Your task to perform on an android device: What's on my calendar today? Image 0: 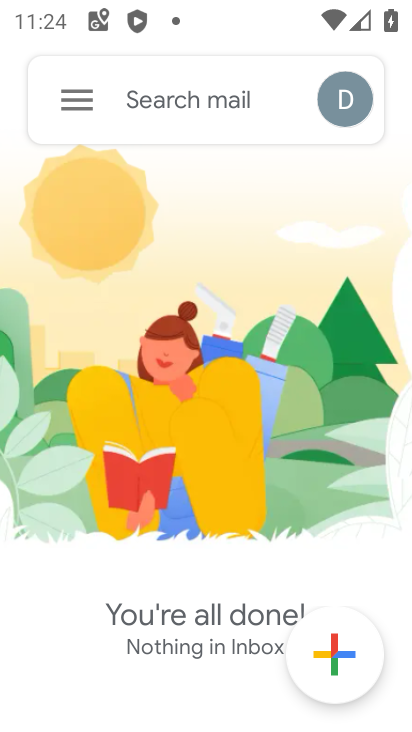
Step 0: drag from (283, 635) to (249, 164)
Your task to perform on an android device: What's on my calendar today? Image 1: 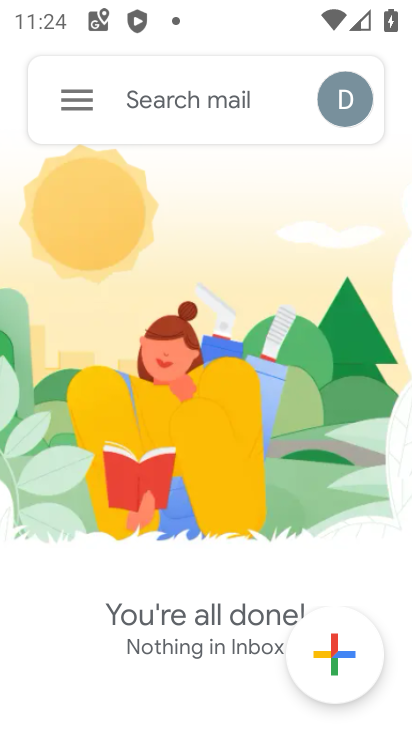
Step 1: click (76, 113)
Your task to perform on an android device: What's on my calendar today? Image 2: 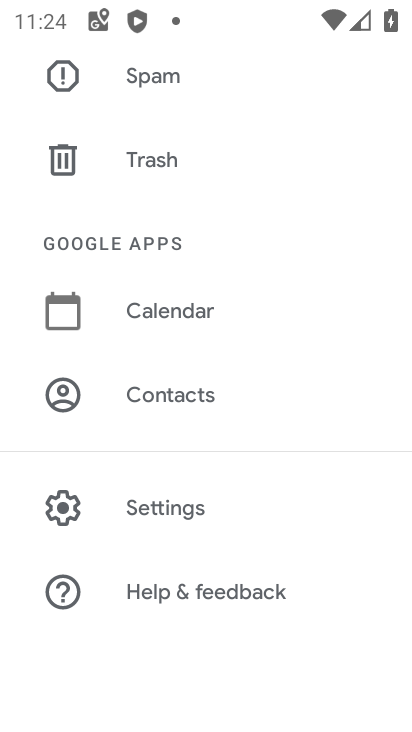
Step 2: press back button
Your task to perform on an android device: What's on my calendar today? Image 3: 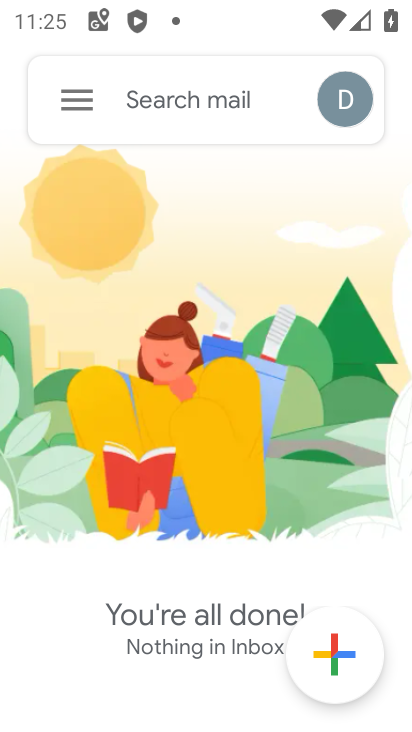
Step 3: click (75, 102)
Your task to perform on an android device: What's on my calendar today? Image 4: 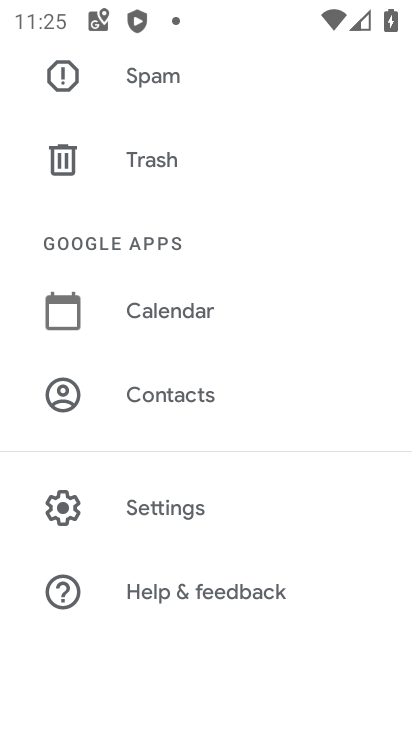
Step 4: click (174, 507)
Your task to perform on an android device: What's on my calendar today? Image 5: 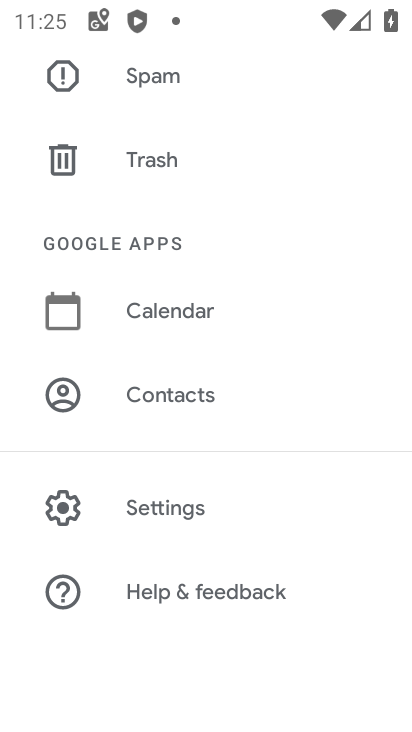
Step 5: click (186, 514)
Your task to perform on an android device: What's on my calendar today? Image 6: 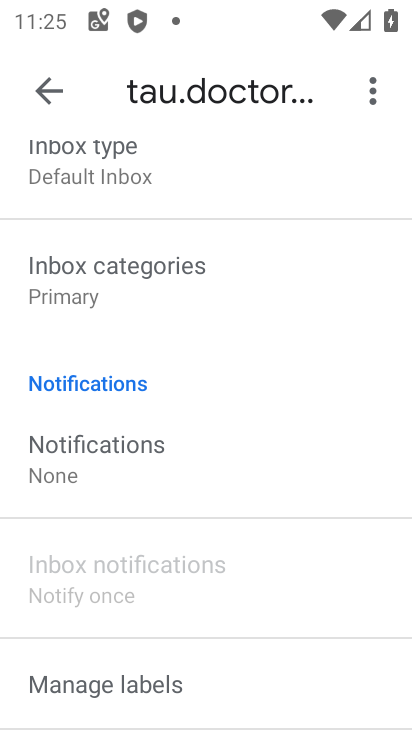
Step 6: click (35, 91)
Your task to perform on an android device: What's on my calendar today? Image 7: 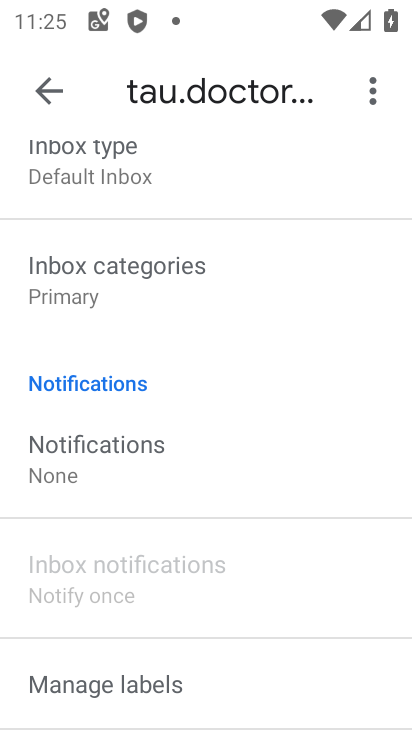
Step 7: click (45, 97)
Your task to perform on an android device: What's on my calendar today? Image 8: 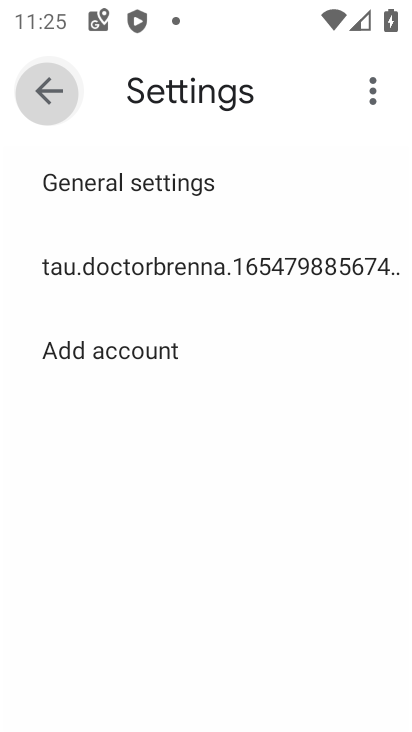
Step 8: click (45, 98)
Your task to perform on an android device: What's on my calendar today? Image 9: 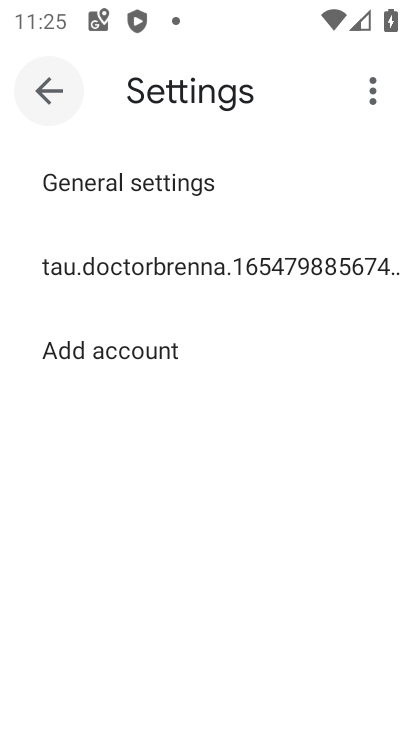
Step 9: click (46, 100)
Your task to perform on an android device: What's on my calendar today? Image 10: 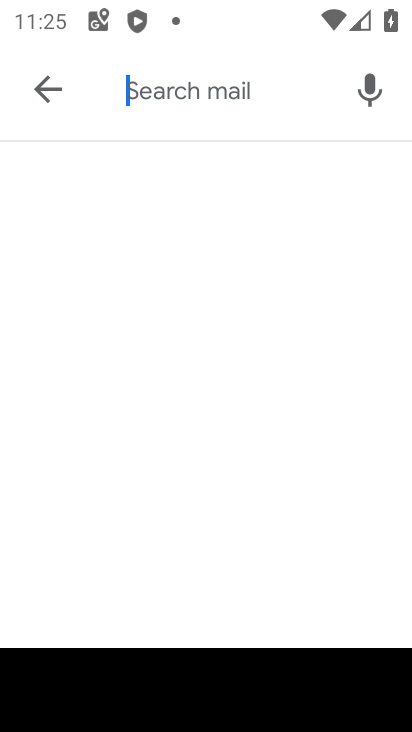
Step 10: press back button
Your task to perform on an android device: What's on my calendar today? Image 11: 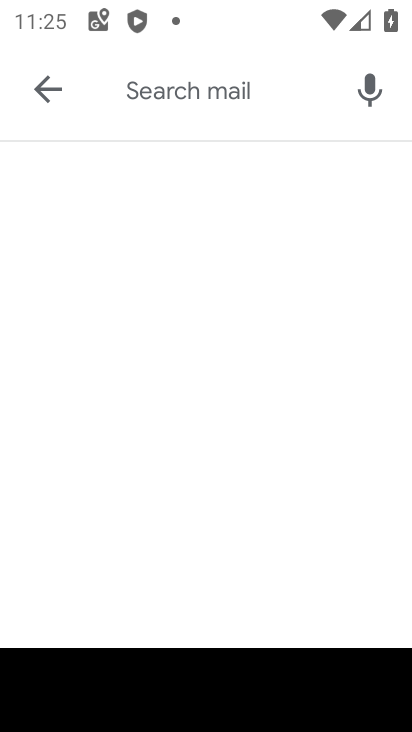
Step 11: press back button
Your task to perform on an android device: What's on my calendar today? Image 12: 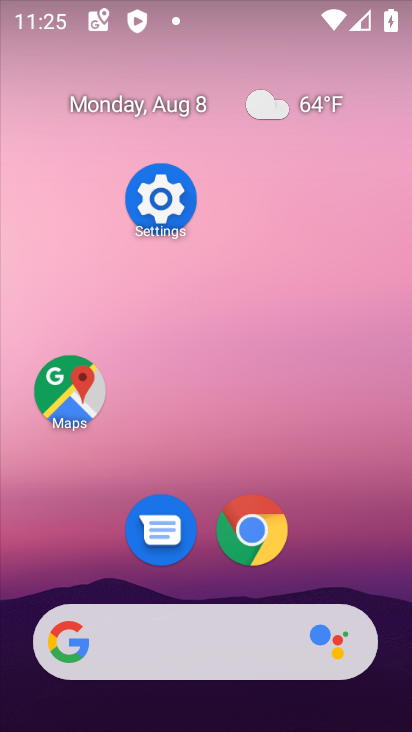
Step 12: drag from (249, 629) to (167, 103)
Your task to perform on an android device: What's on my calendar today? Image 13: 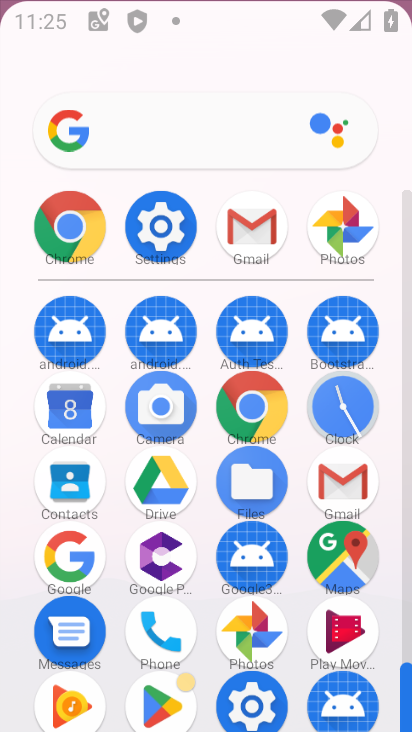
Step 13: drag from (247, 458) to (234, 122)
Your task to perform on an android device: What's on my calendar today? Image 14: 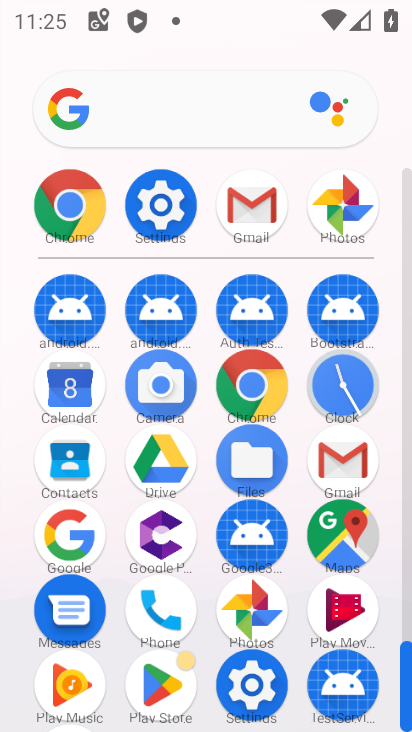
Step 14: click (67, 401)
Your task to perform on an android device: What's on my calendar today? Image 15: 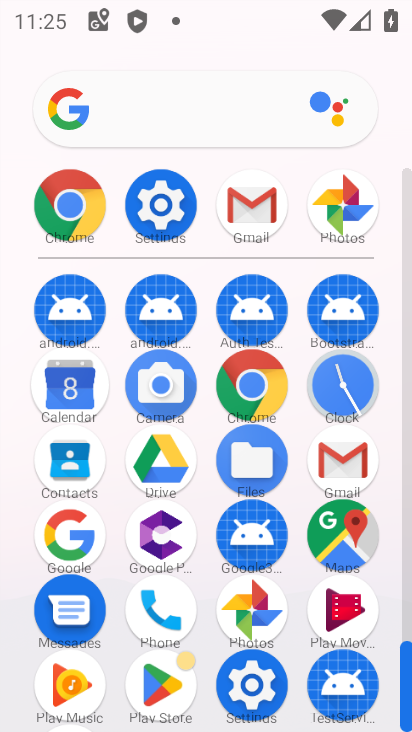
Step 15: click (67, 400)
Your task to perform on an android device: What's on my calendar today? Image 16: 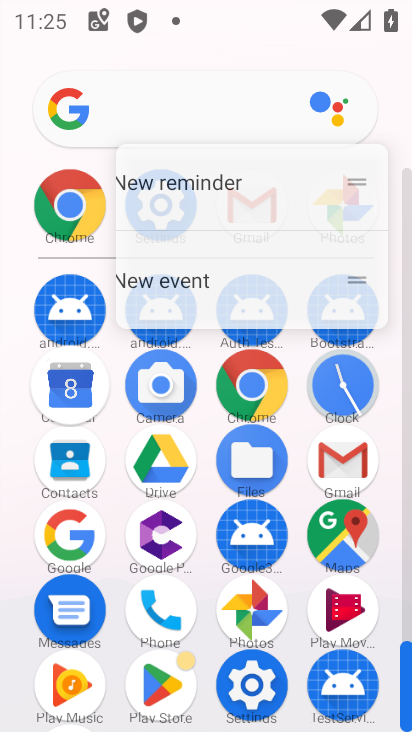
Step 16: click (71, 396)
Your task to perform on an android device: What's on my calendar today? Image 17: 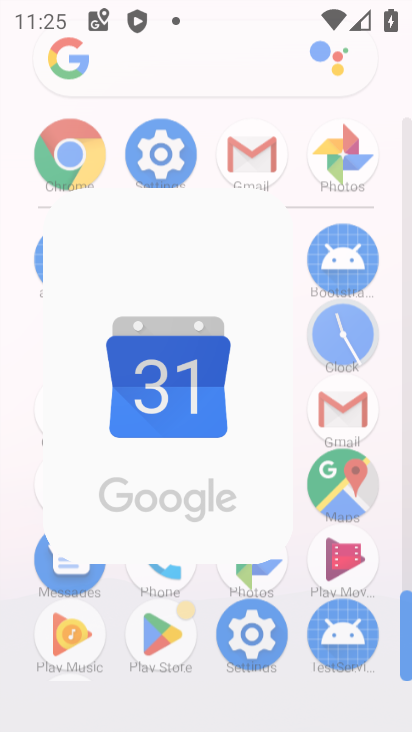
Step 17: click (79, 384)
Your task to perform on an android device: What's on my calendar today? Image 18: 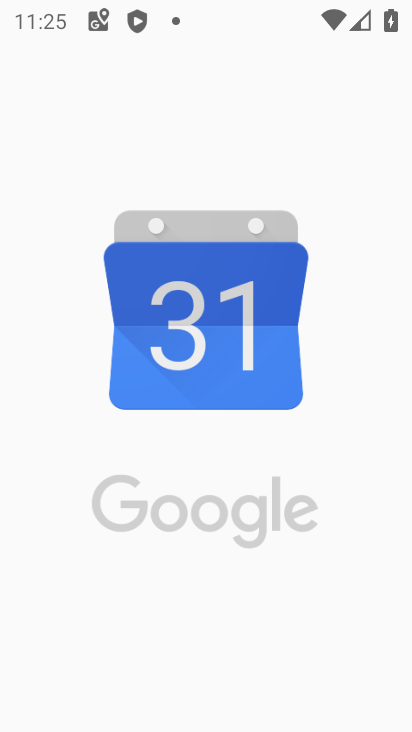
Step 18: click (81, 384)
Your task to perform on an android device: What's on my calendar today? Image 19: 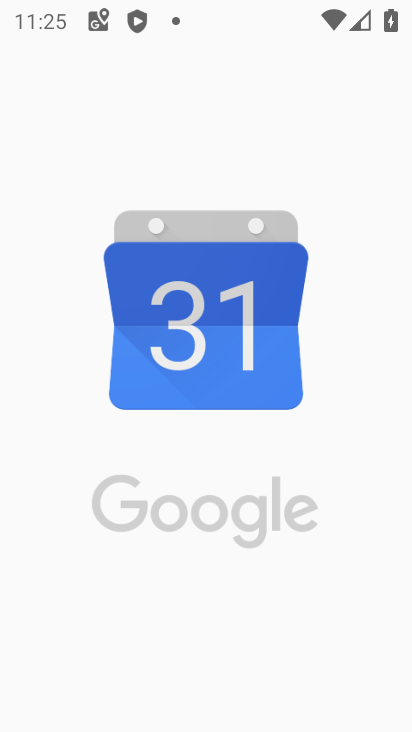
Step 19: click (84, 384)
Your task to perform on an android device: What's on my calendar today? Image 20: 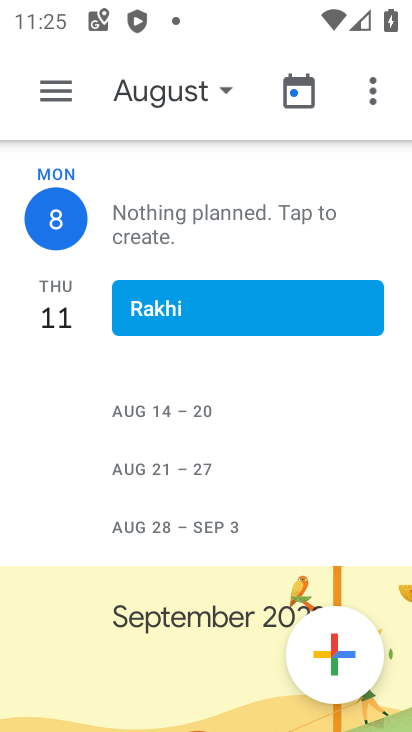
Step 20: click (229, 85)
Your task to perform on an android device: What's on my calendar today? Image 21: 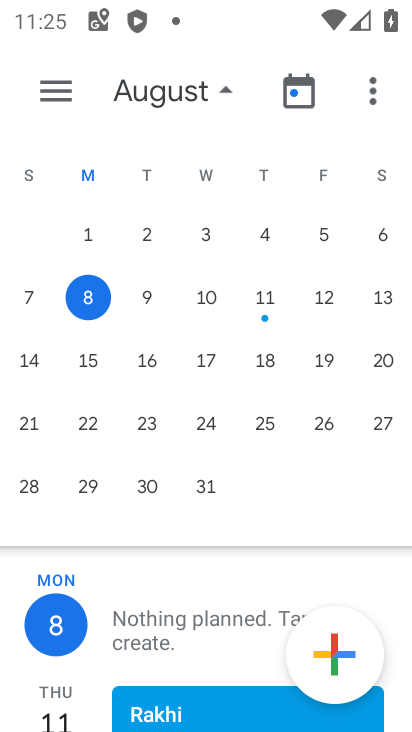
Step 21: click (147, 286)
Your task to perform on an android device: What's on my calendar today? Image 22: 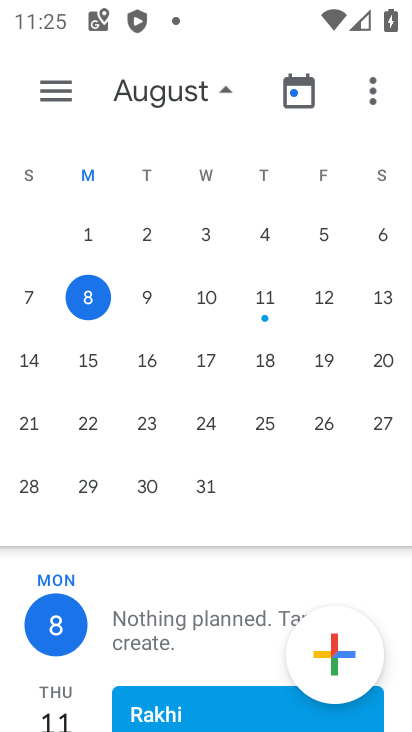
Step 22: click (147, 286)
Your task to perform on an android device: What's on my calendar today? Image 23: 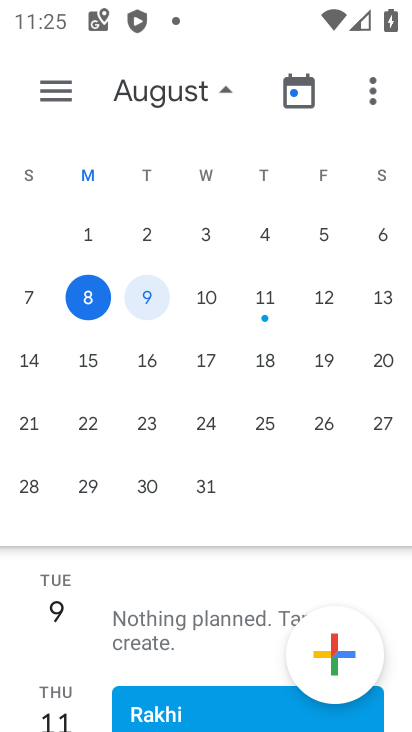
Step 23: click (147, 286)
Your task to perform on an android device: What's on my calendar today? Image 24: 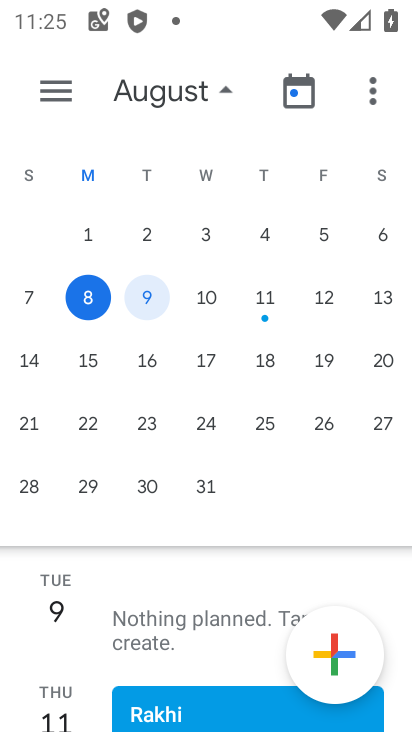
Step 24: click (148, 287)
Your task to perform on an android device: What's on my calendar today? Image 25: 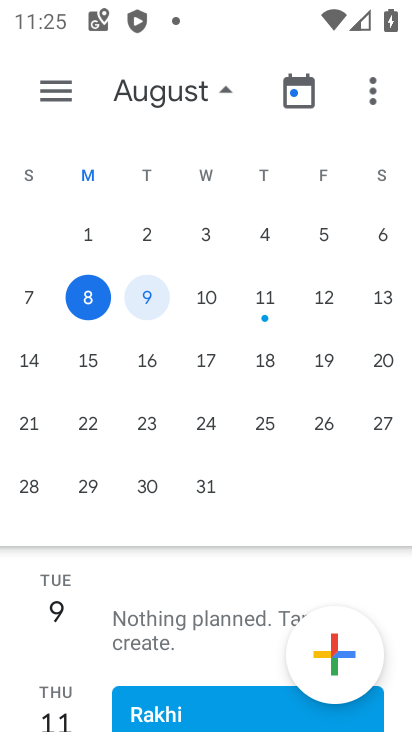
Step 25: click (148, 287)
Your task to perform on an android device: What's on my calendar today? Image 26: 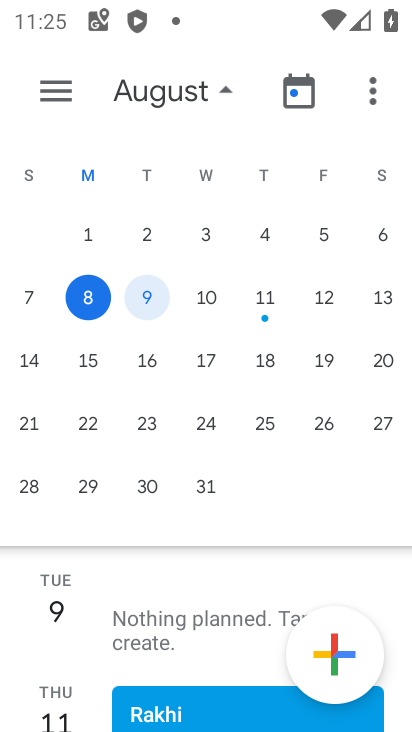
Step 26: click (149, 288)
Your task to perform on an android device: What's on my calendar today? Image 27: 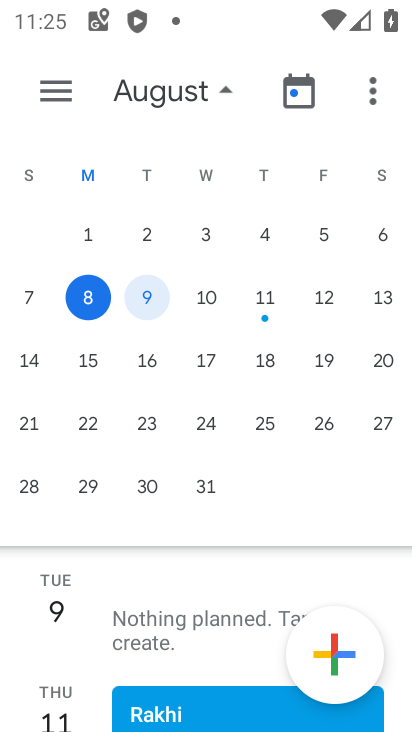
Step 27: click (152, 291)
Your task to perform on an android device: What's on my calendar today? Image 28: 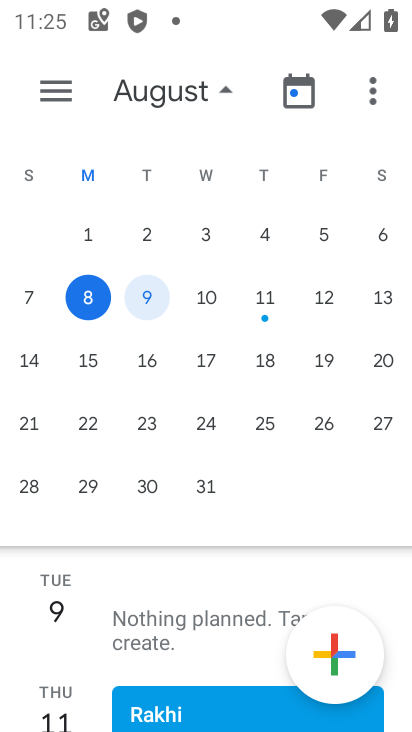
Step 28: task complete